Your task to perform on an android device: Open the phone app and click the voicemail tab. Image 0: 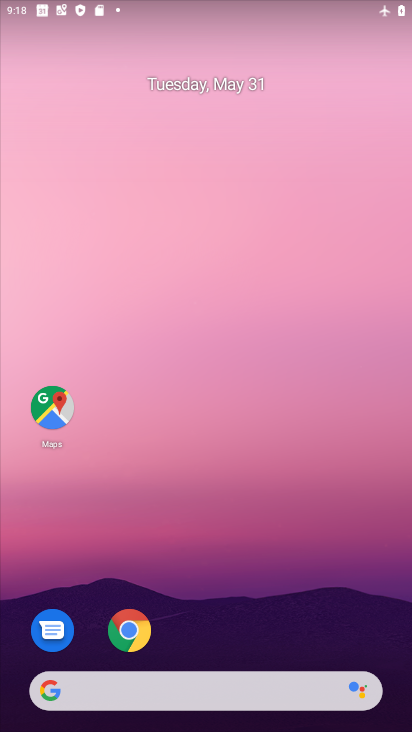
Step 0: drag from (235, 654) to (241, 220)
Your task to perform on an android device: Open the phone app and click the voicemail tab. Image 1: 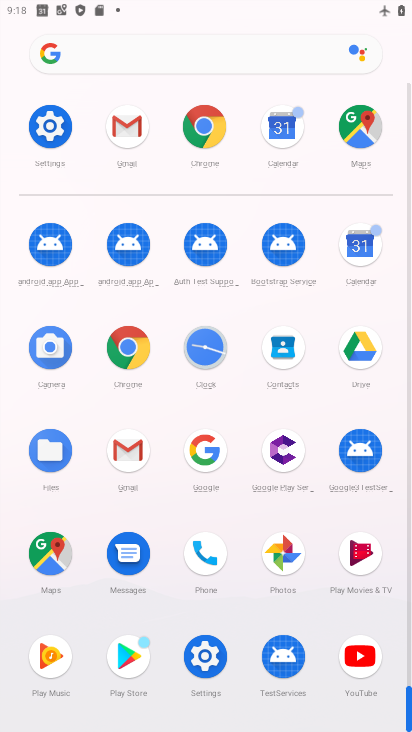
Step 1: click (193, 551)
Your task to perform on an android device: Open the phone app and click the voicemail tab. Image 2: 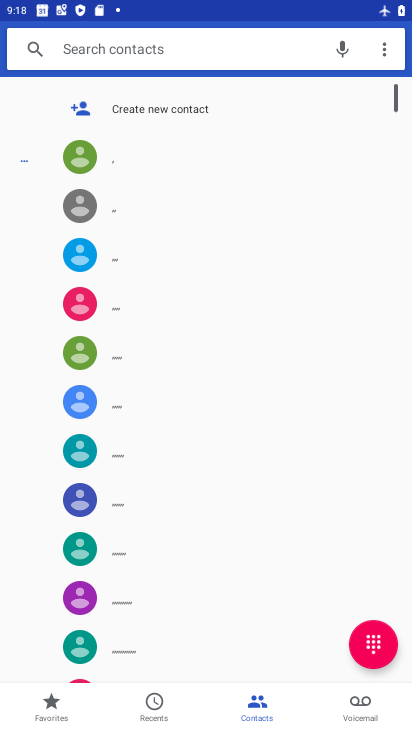
Step 2: click (349, 699)
Your task to perform on an android device: Open the phone app and click the voicemail tab. Image 3: 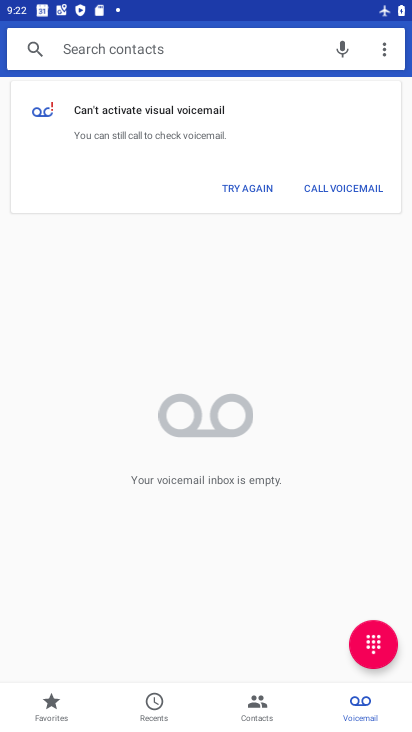
Step 3: task complete